Your task to perform on an android device: search for starred emails in the gmail app Image 0: 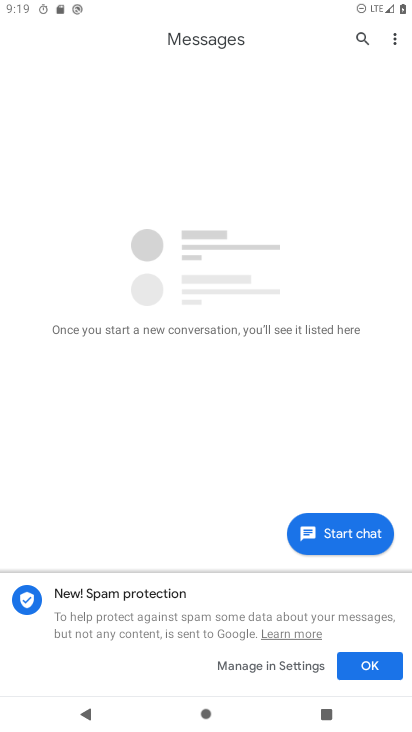
Step 0: press home button
Your task to perform on an android device: search for starred emails in the gmail app Image 1: 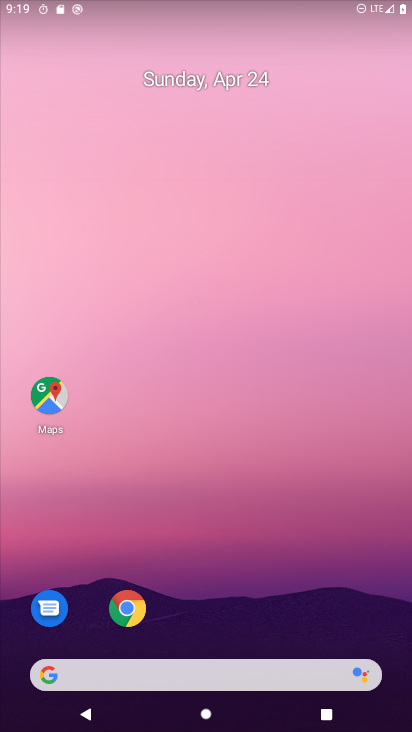
Step 1: drag from (288, 547) to (300, 67)
Your task to perform on an android device: search for starred emails in the gmail app Image 2: 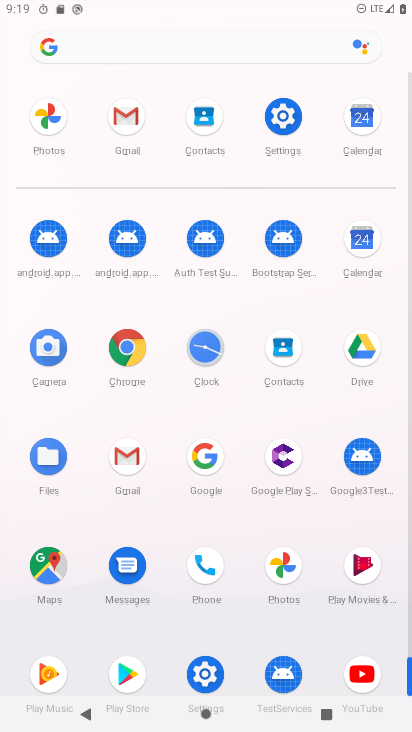
Step 2: click (131, 120)
Your task to perform on an android device: search for starred emails in the gmail app Image 3: 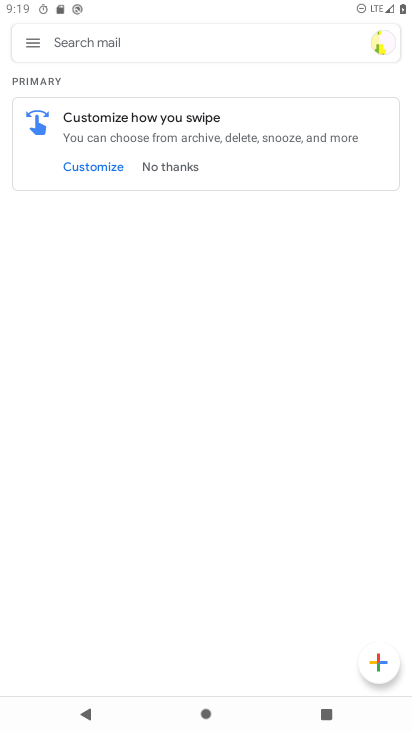
Step 3: click (35, 40)
Your task to perform on an android device: search for starred emails in the gmail app Image 4: 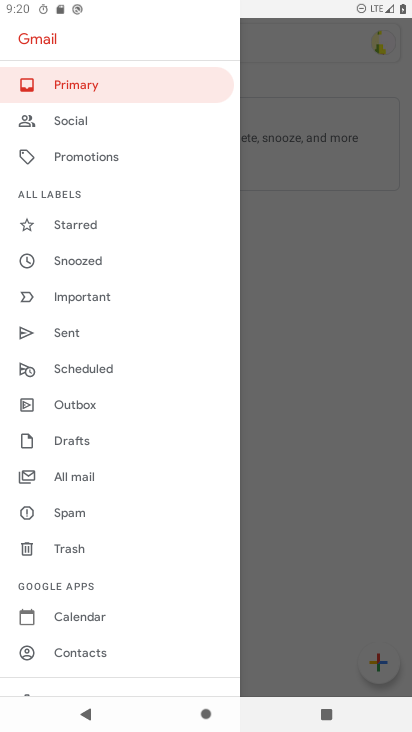
Step 4: click (106, 214)
Your task to perform on an android device: search for starred emails in the gmail app Image 5: 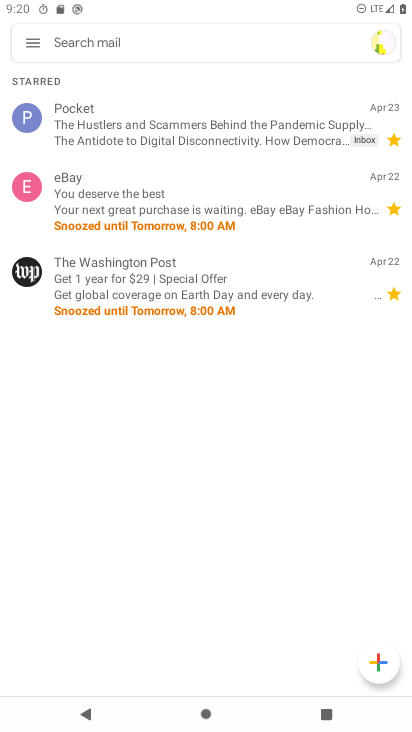
Step 5: task complete